Your task to perform on an android device: Search for sushi restaurants on Maps Image 0: 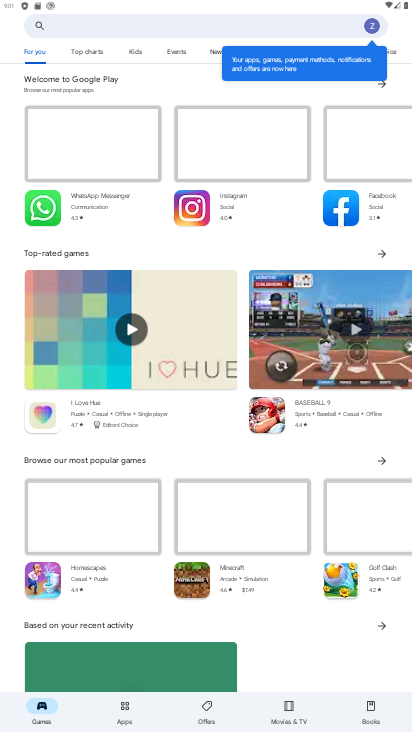
Step 0: press home button
Your task to perform on an android device: Search for sushi restaurants on Maps Image 1: 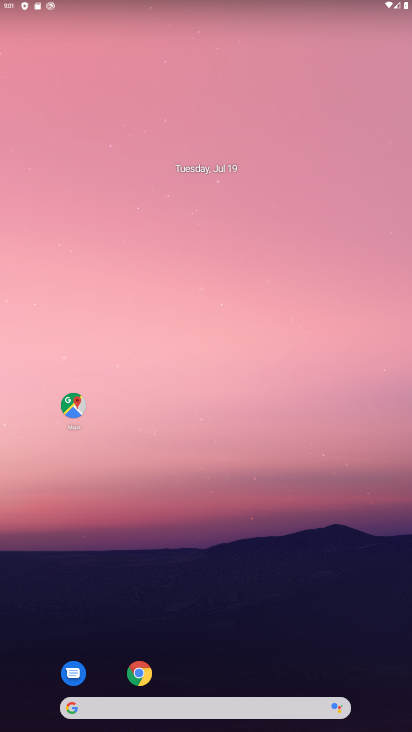
Step 1: click (87, 416)
Your task to perform on an android device: Search for sushi restaurants on Maps Image 2: 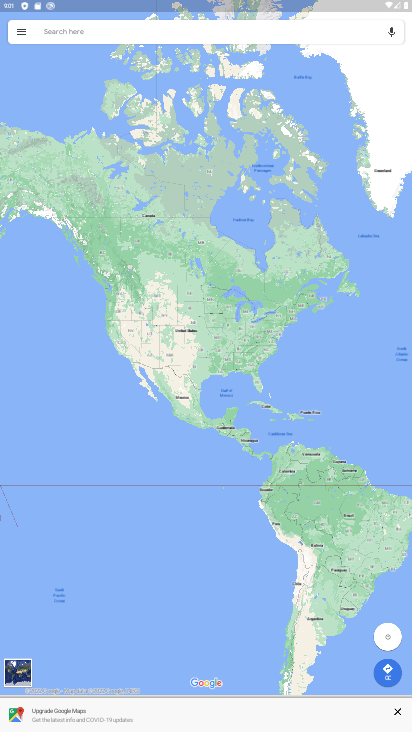
Step 2: click (210, 33)
Your task to perform on an android device: Search for sushi restaurants on Maps Image 3: 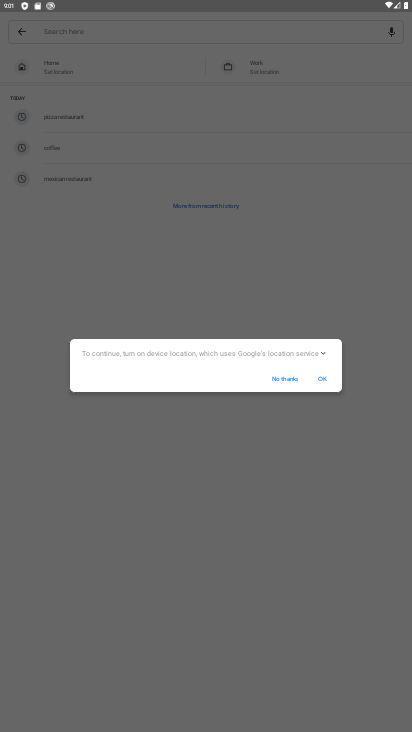
Step 3: type "sushi restaurants"
Your task to perform on an android device: Search for sushi restaurants on Maps Image 4: 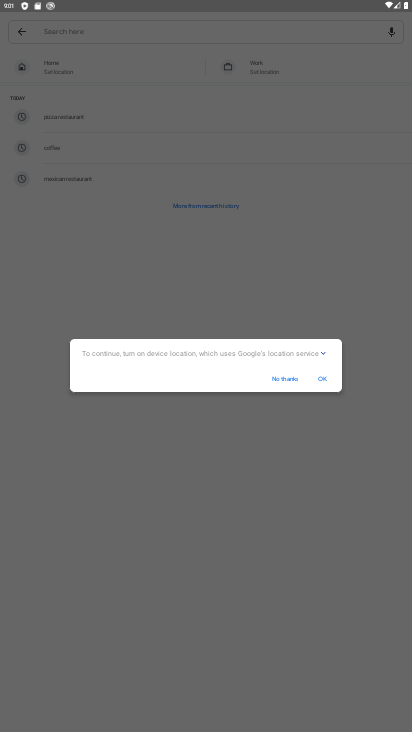
Step 4: click (325, 379)
Your task to perform on an android device: Search for sushi restaurants on Maps Image 5: 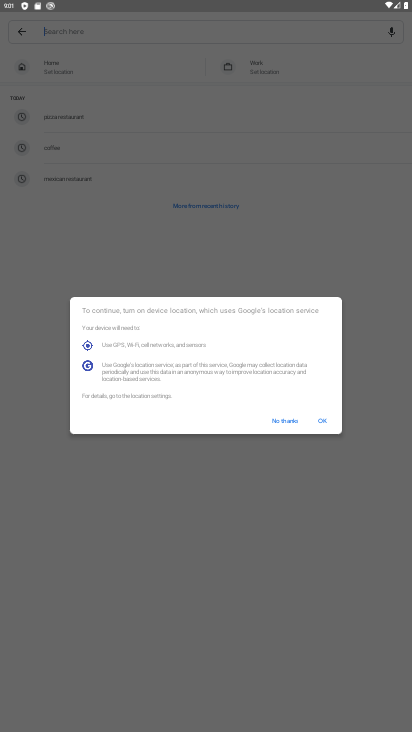
Step 5: click (325, 419)
Your task to perform on an android device: Search for sushi restaurants on Maps Image 6: 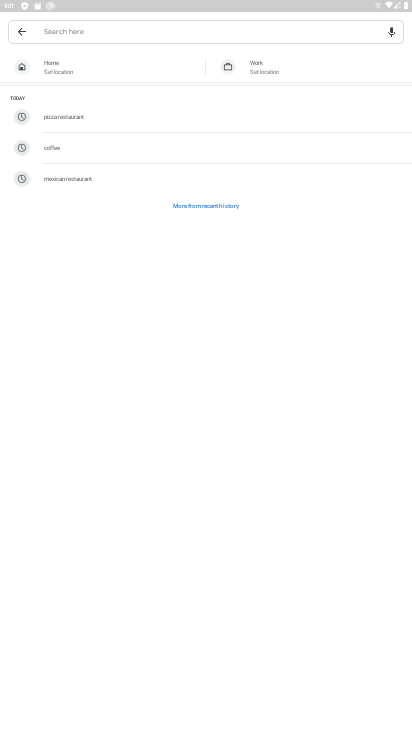
Step 6: click (147, 33)
Your task to perform on an android device: Search for sushi restaurants on Maps Image 7: 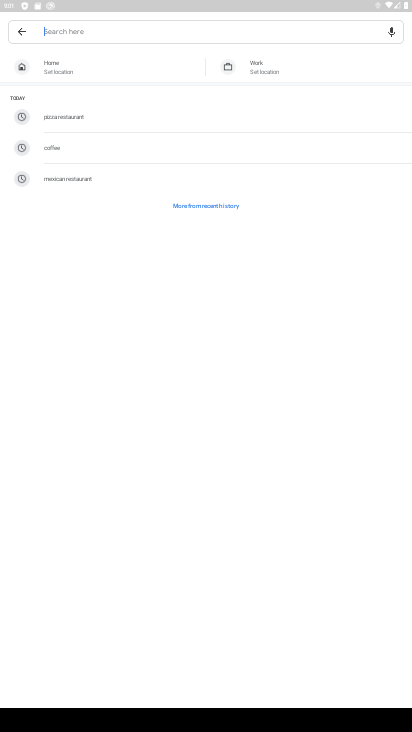
Step 7: click (19, 31)
Your task to perform on an android device: Search for sushi restaurants on Maps Image 8: 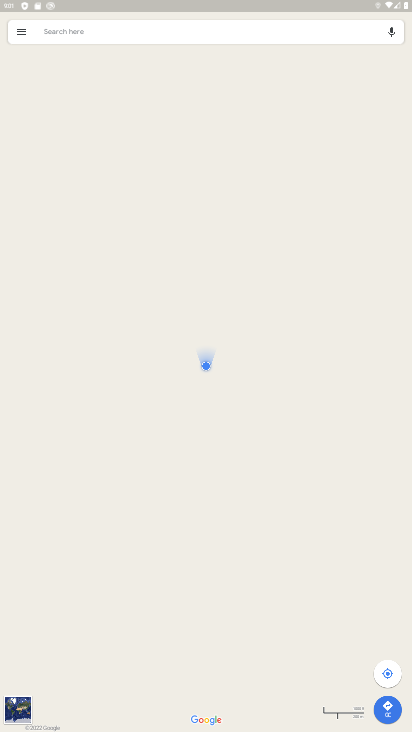
Step 8: click (118, 29)
Your task to perform on an android device: Search for sushi restaurants on Maps Image 9: 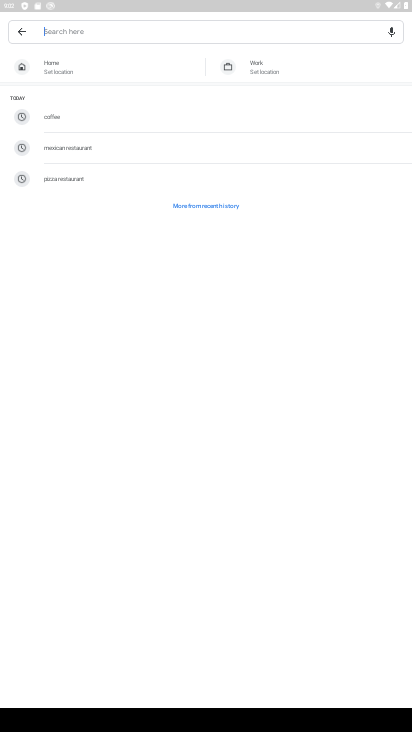
Step 9: type "sushi restaurants"
Your task to perform on an android device: Search for sushi restaurants on Maps Image 10: 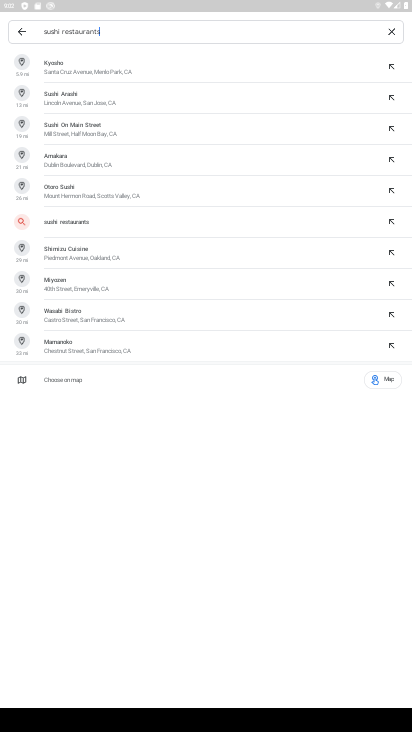
Step 10: click (92, 217)
Your task to perform on an android device: Search for sushi restaurants on Maps Image 11: 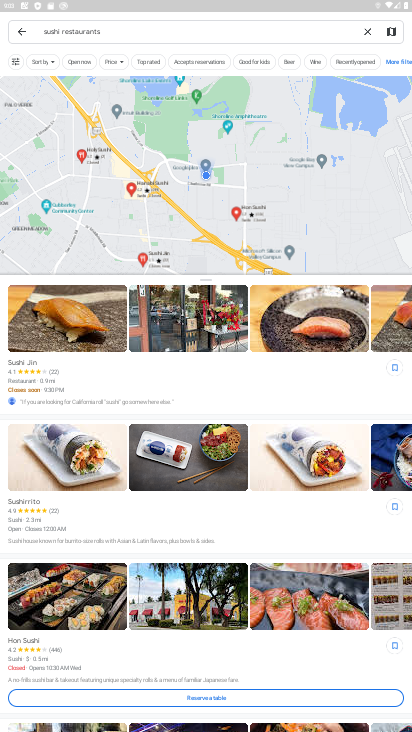
Step 11: task complete